Your task to perform on an android device: Search for macbook air on newegg, select the first entry, and add it to the cart. Image 0: 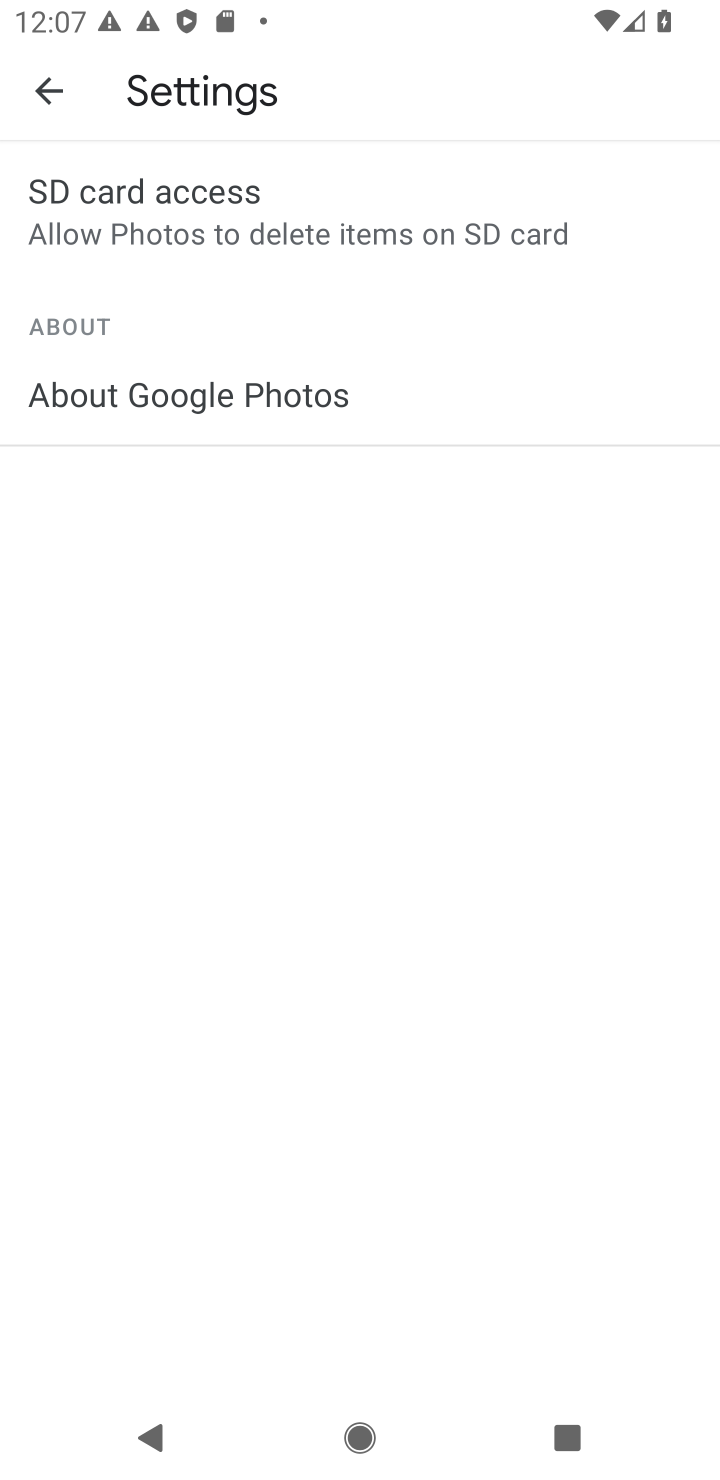
Step 0: press home button
Your task to perform on an android device: Search for macbook air on newegg, select the first entry, and add it to the cart. Image 1: 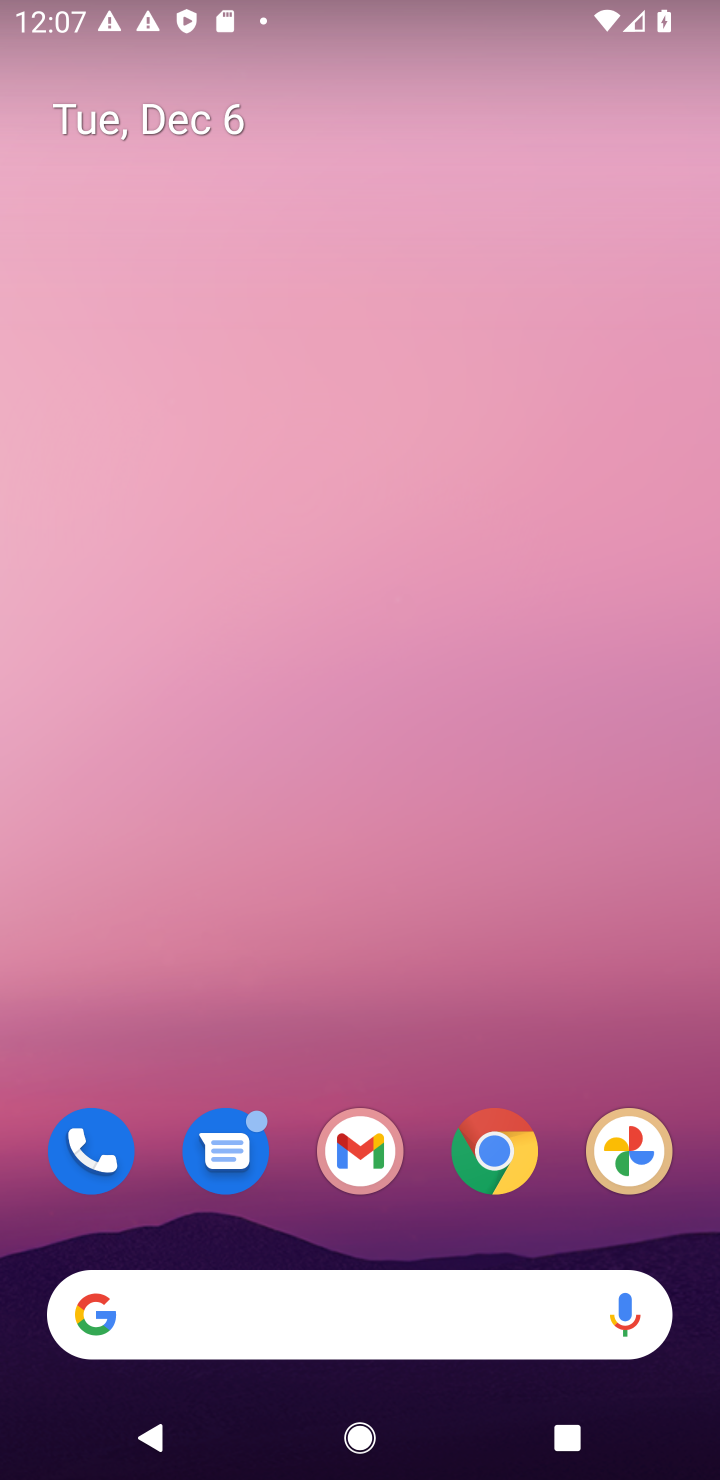
Step 1: click (478, 1159)
Your task to perform on an android device: Search for macbook air on newegg, select the first entry, and add it to the cart. Image 2: 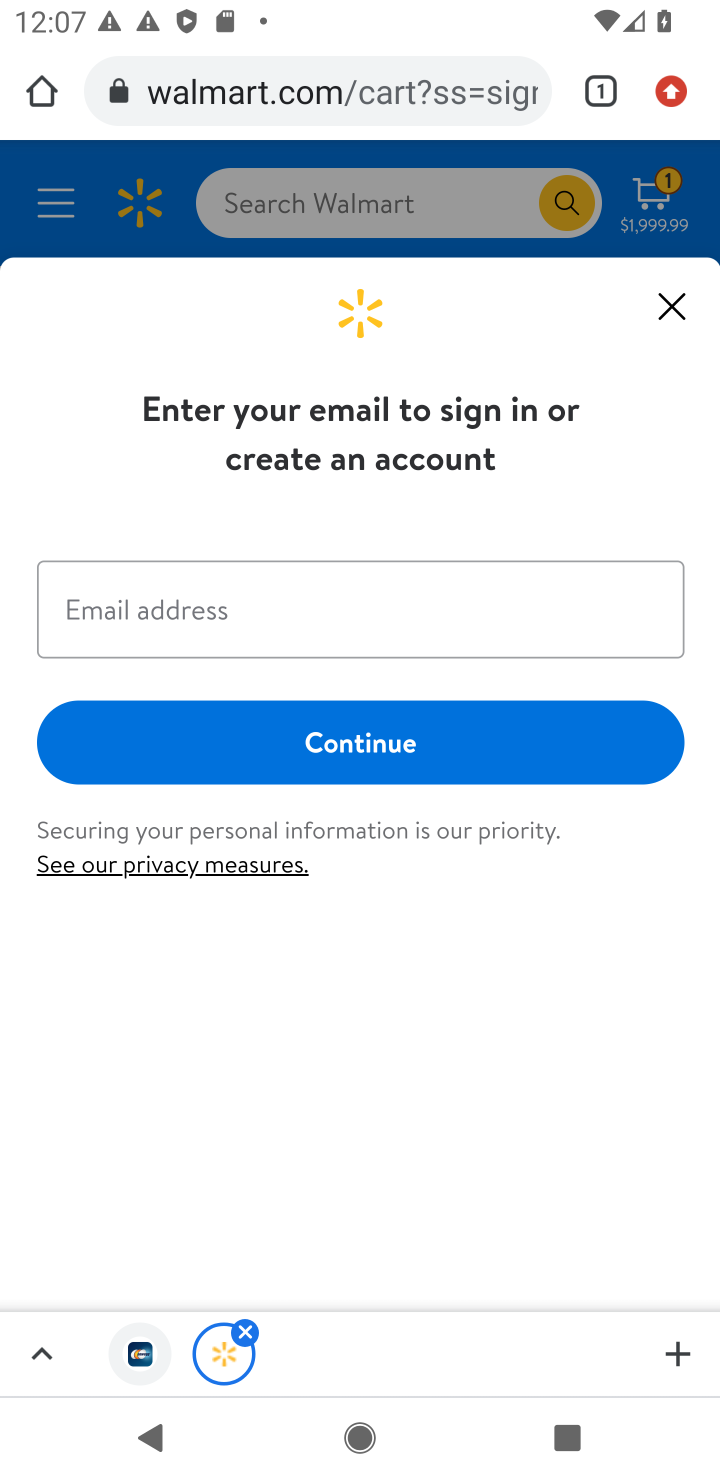
Step 2: click (310, 72)
Your task to perform on an android device: Search for macbook air on newegg, select the first entry, and add it to the cart. Image 3: 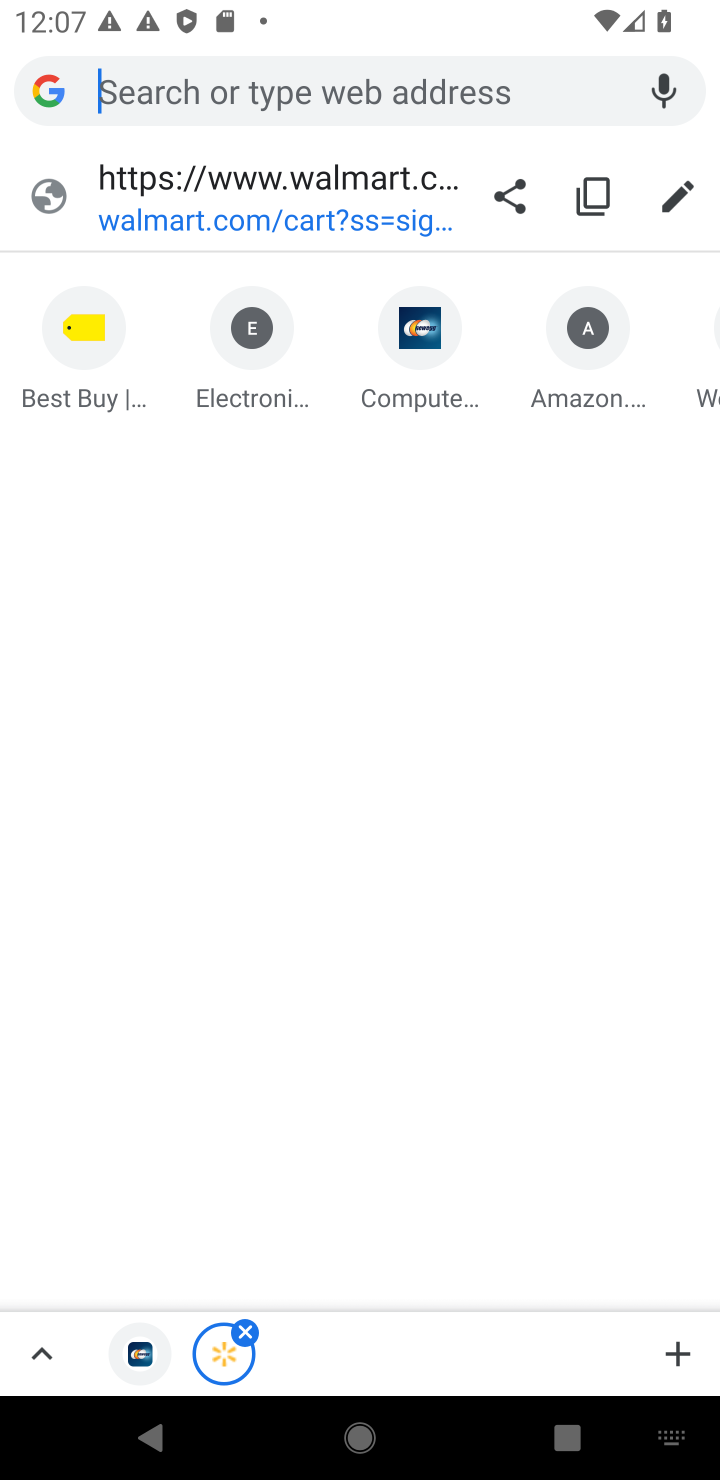
Step 3: click (432, 383)
Your task to perform on an android device: Search for macbook air on newegg, select the first entry, and add it to the cart. Image 4: 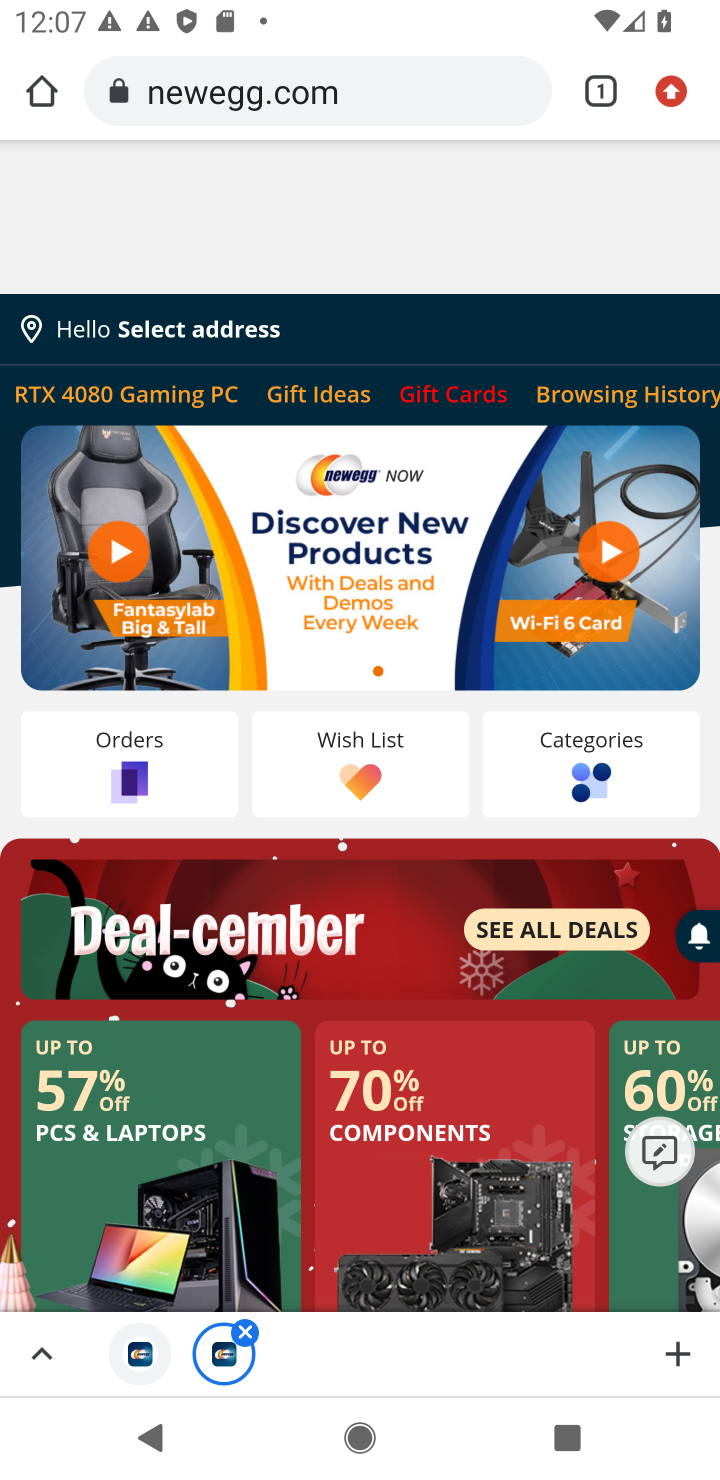
Step 4: click (213, 258)
Your task to perform on an android device: Search for macbook air on newegg, select the first entry, and add it to the cart. Image 5: 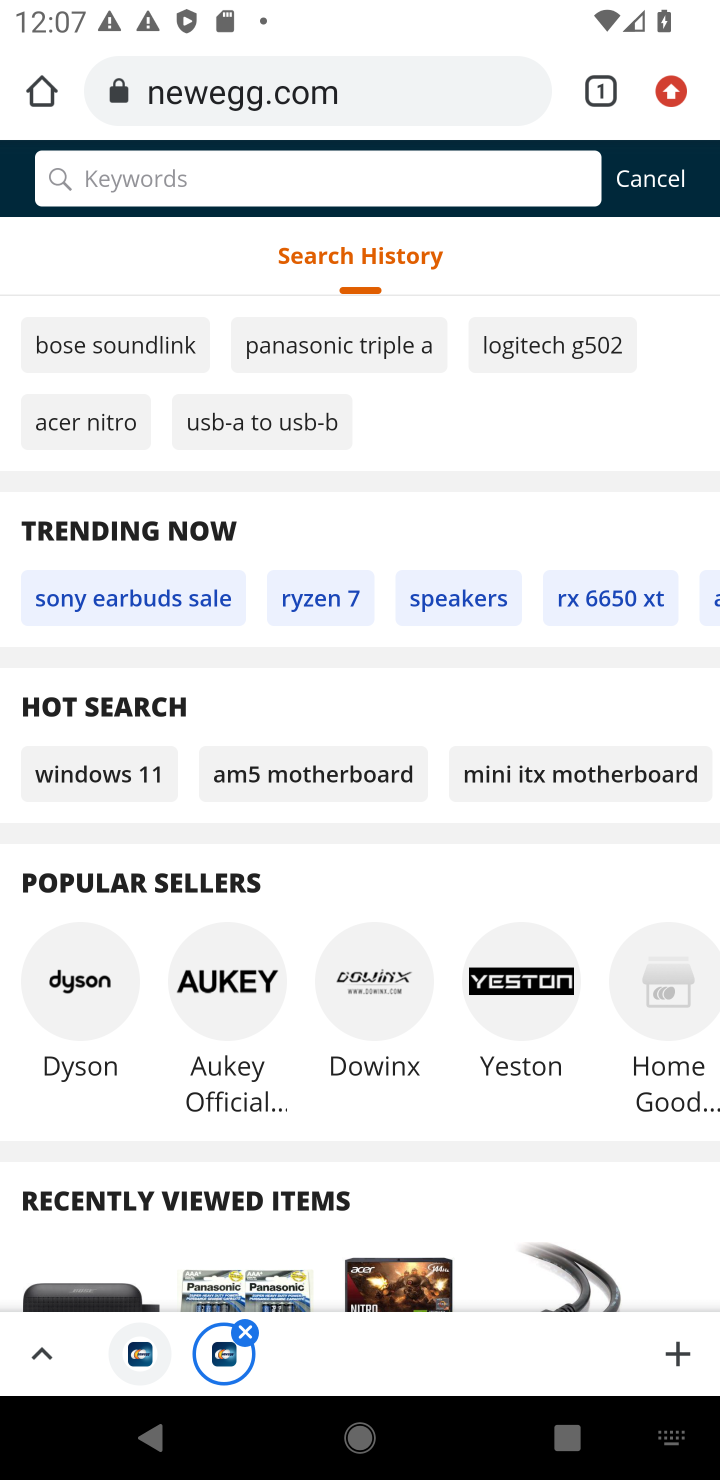
Step 5: type "macbook air"
Your task to perform on an android device: Search for macbook air on newegg, select the first entry, and add it to the cart. Image 6: 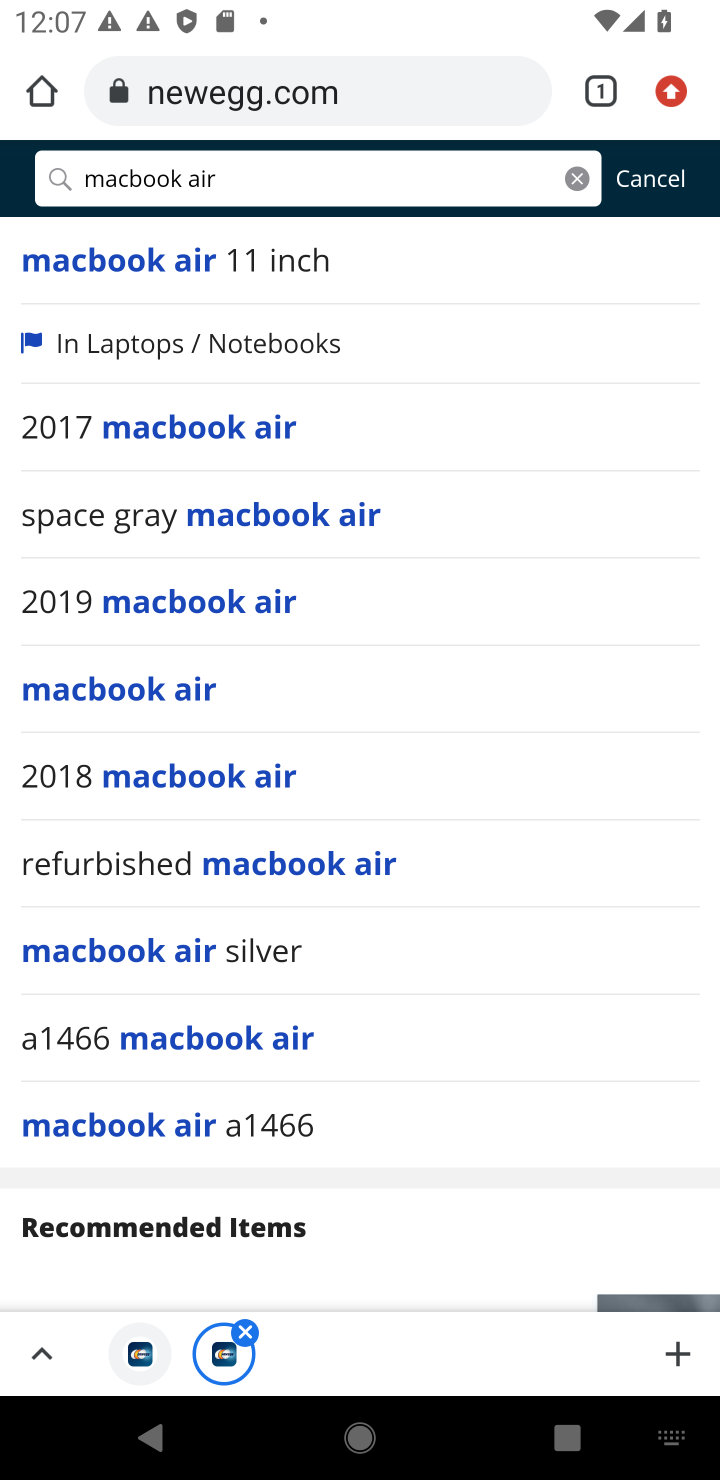
Step 6: click (121, 679)
Your task to perform on an android device: Search for macbook air on newegg, select the first entry, and add it to the cart. Image 7: 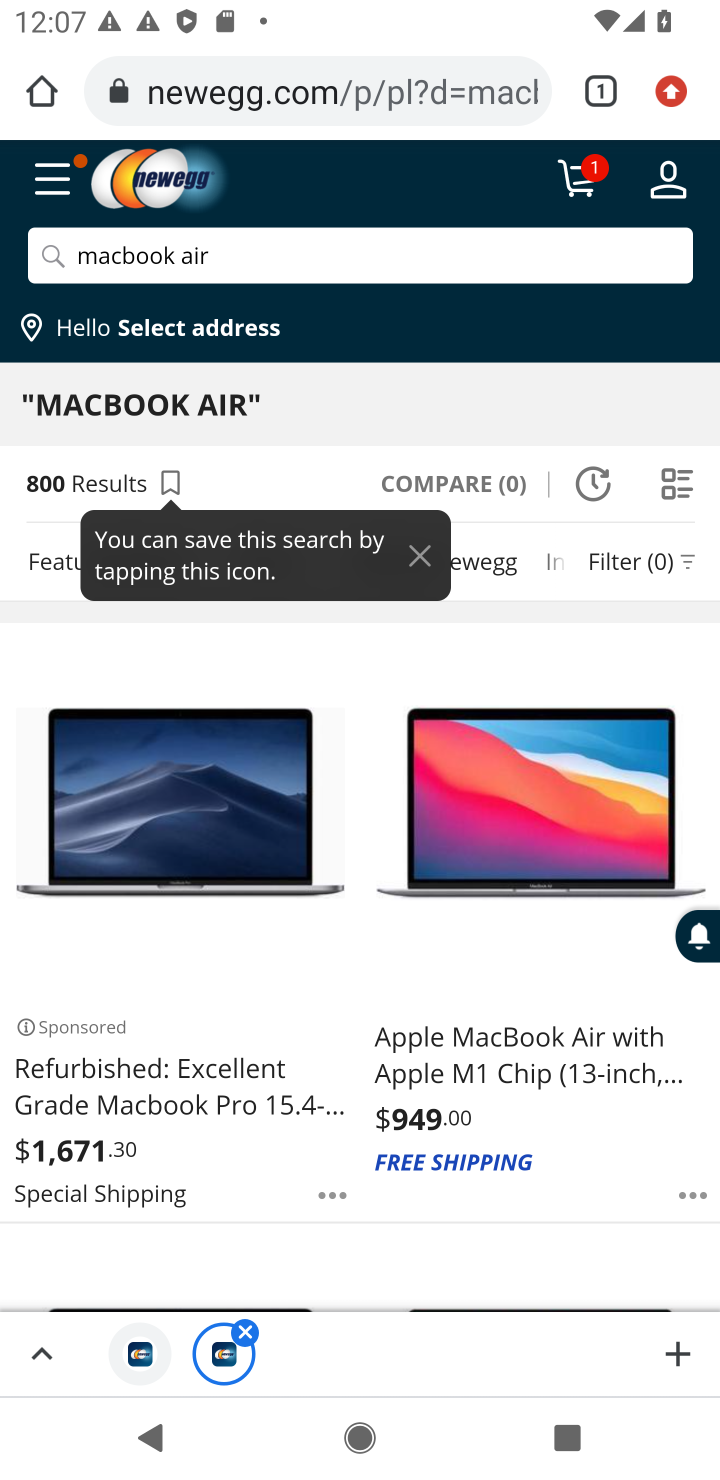
Step 7: task complete